Your task to perform on an android device: Open Reddit.com Image 0: 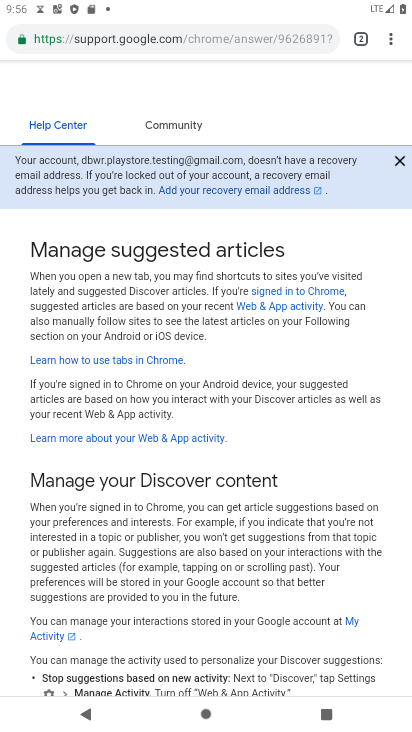
Step 0: press home button
Your task to perform on an android device: Open Reddit.com Image 1: 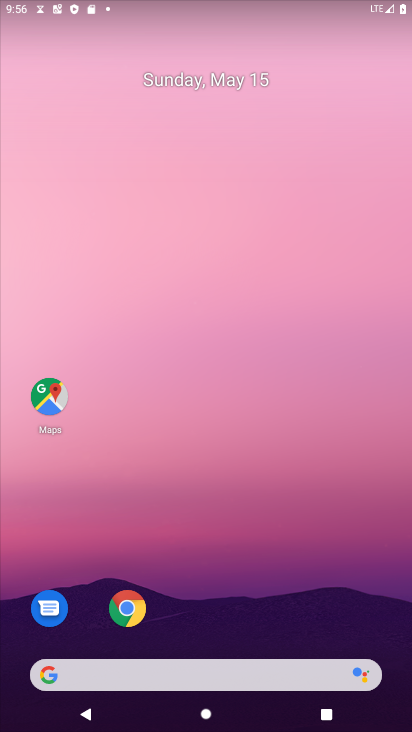
Step 1: drag from (317, 565) to (273, 120)
Your task to perform on an android device: Open Reddit.com Image 2: 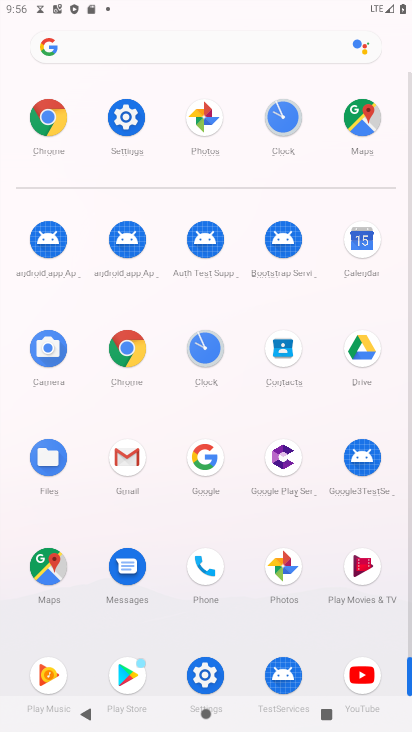
Step 2: click (56, 119)
Your task to perform on an android device: Open Reddit.com Image 3: 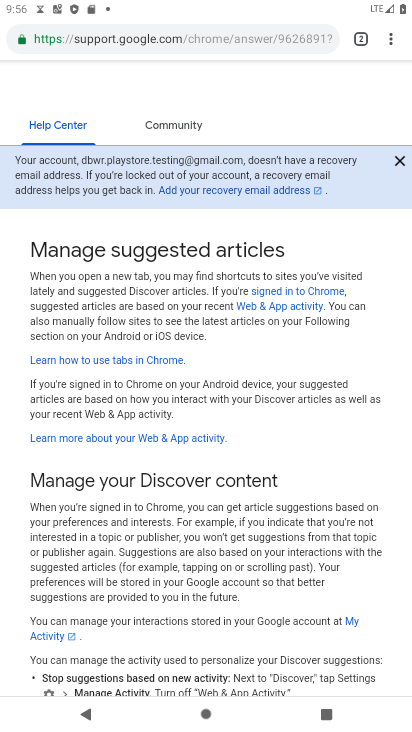
Step 3: click (218, 43)
Your task to perform on an android device: Open Reddit.com Image 4: 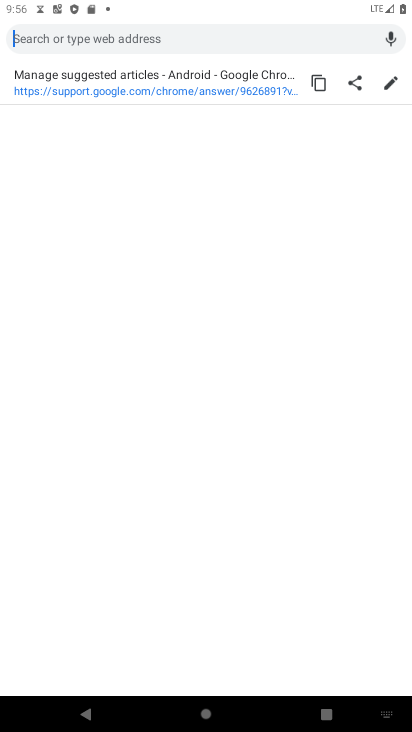
Step 4: type "reddit"
Your task to perform on an android device: Open Reddit.com Image 5: 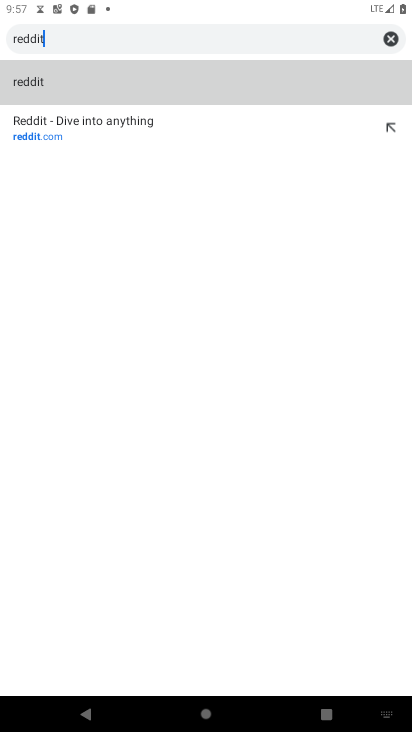
Step 5: click (29, 121)
Your task to perform on an android device: Open Reddit.com Image 6: 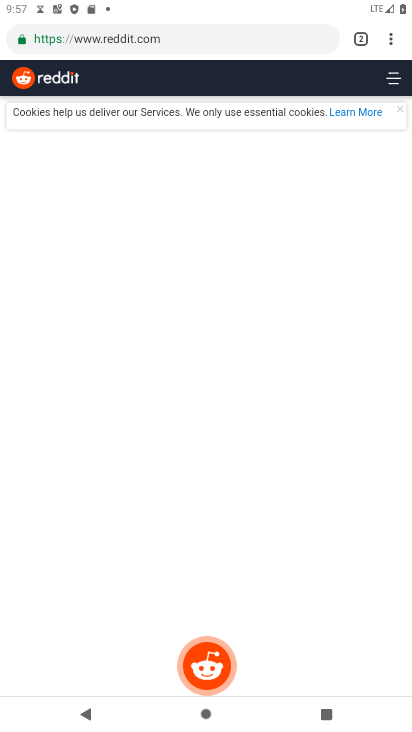
Step 6: task complete